Your task to perform on an android device: turn on improve location accuracy Image 0: 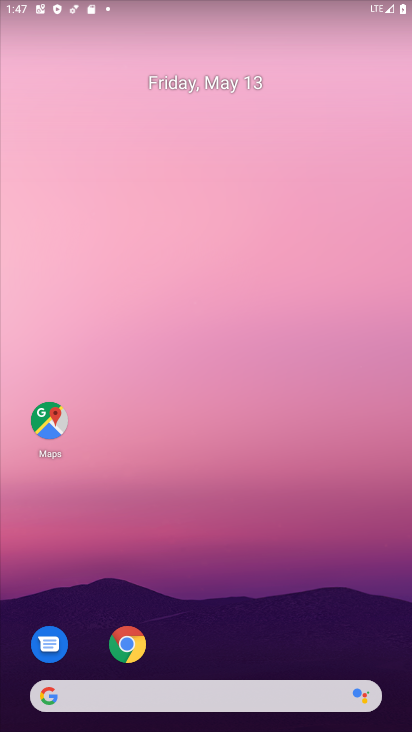
Step 0: drag from (322, 631) to (177, 37)
Your task to perform on an android device: turn on improve location accuracy Image 1: 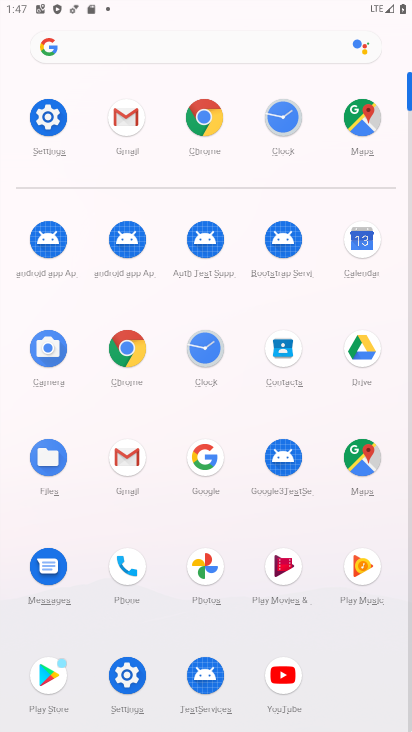
Step 1: click (132, 696)
Your task to perform on an android device: turn on improve location accuracy Image 2: 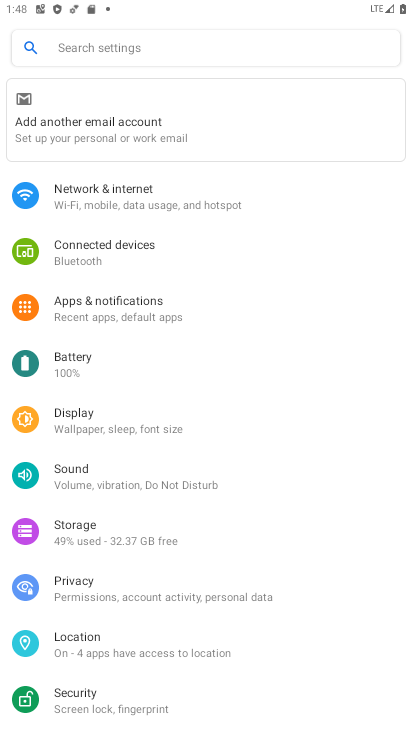
Step 2: click (111, 638)
Your task to perform on an android device: turn on improve location accuracy Image 3: 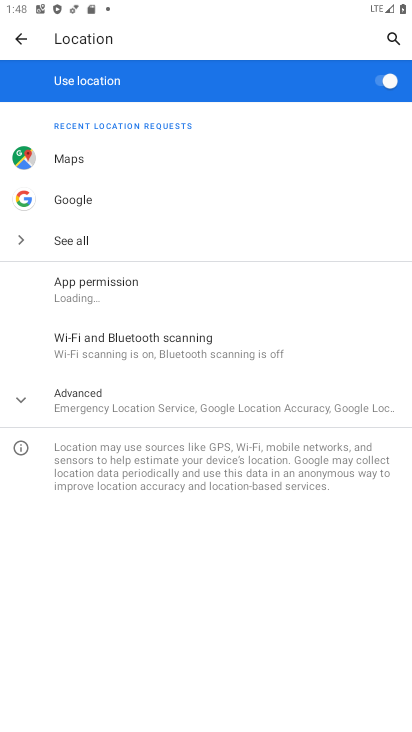
Step 3: click (133, 400)
Your task to perform on an android device: turn on improve location accuracy Image 4: 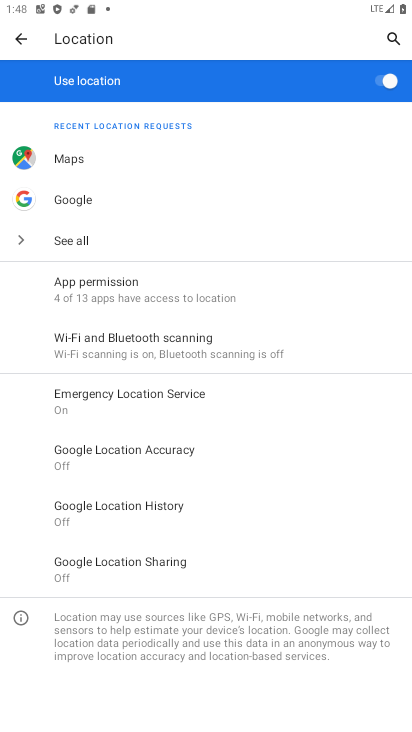
Step 4: click (176, 456)
Your task to perform on an android device: turn on improve location accuracy Image 5: 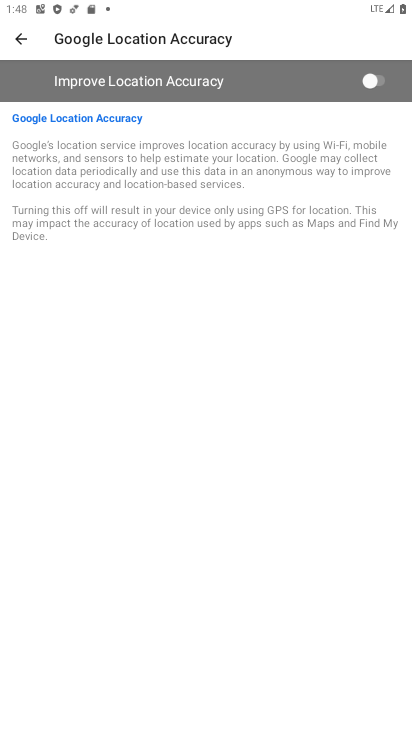
Step 5: click (352, 92)
Your task to perform on an android device: turn on improve location accuracy Image 6: 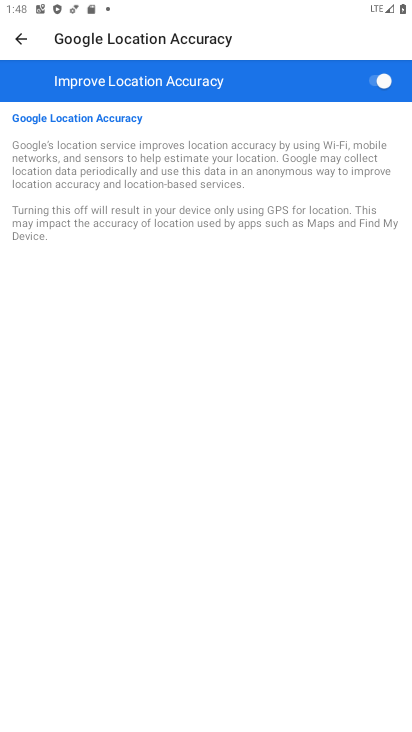
Step 6: task complete